Your task to perform on an android device: turn on wifi Image 0: 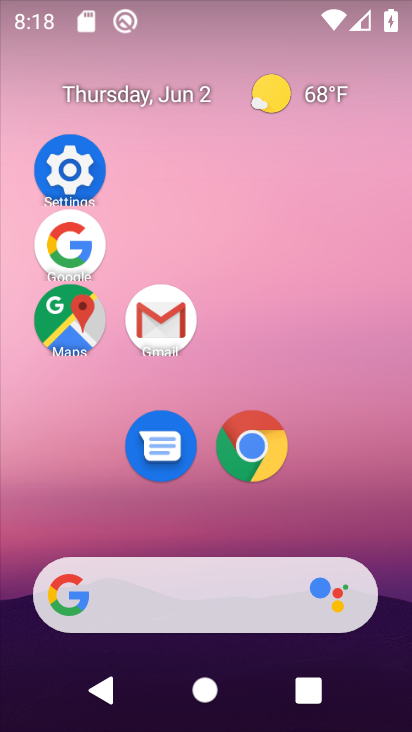
Step 0: click (67, 162)
Your task to perform on an android device: turn on wifi Image 1: 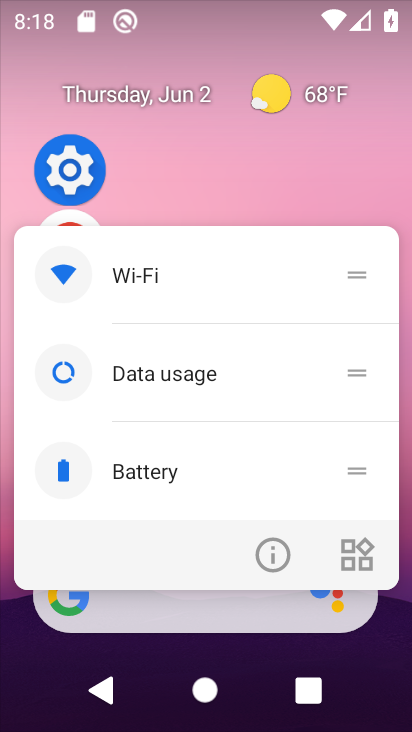
Step 1: click (139, 265)
Your task to perform on an android device: turn on wifi Image 2: 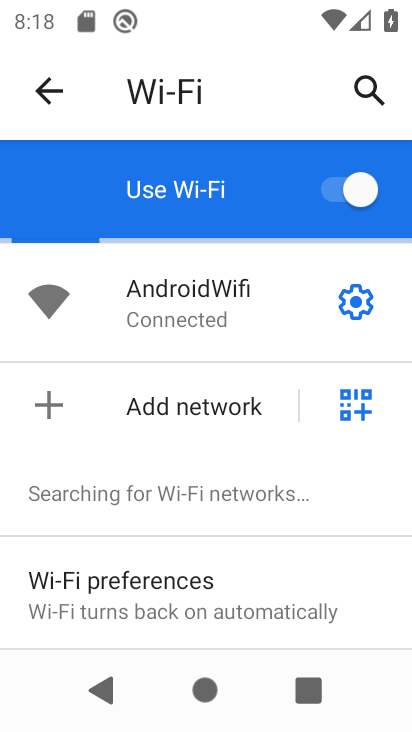
Step 2: task complete